Your task to perform on an android device: turn on bluetooth scan Image 0: 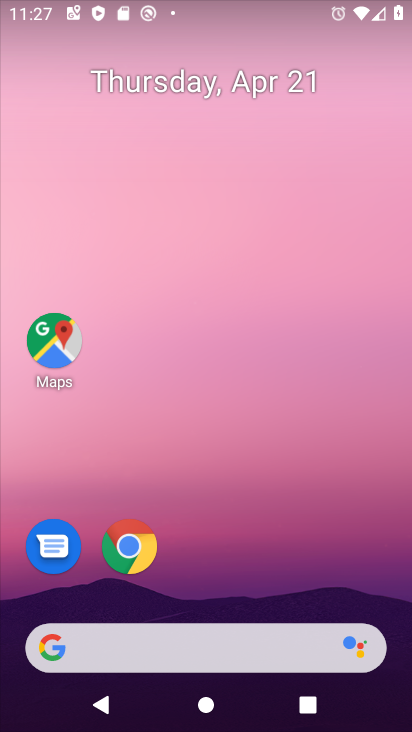
Step 0: drag from (228, 557) to (230, 51)
Your task to perform on an android device: turn on bluetooth scan Image 1: 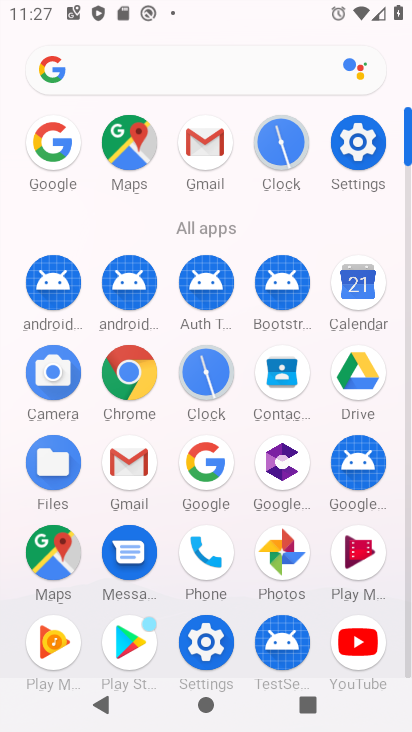
Step 1: click (359, 143)
Your task to perform on an android device: turn on bluetooth scan Image 2: 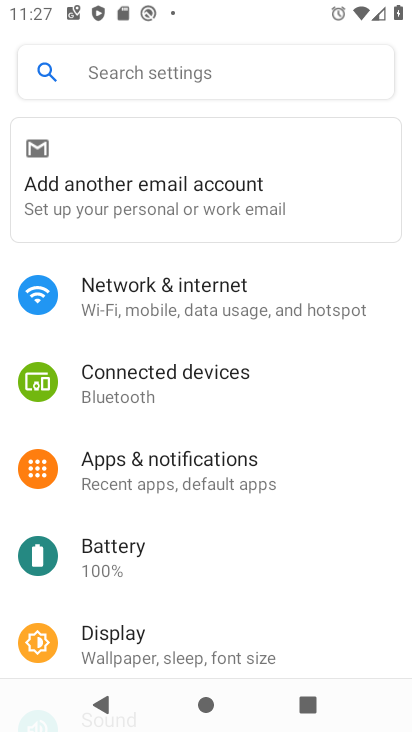
Step 2: drag from (242, 532) to (284, 177)
Your task to perform on an android device: turn on bluetooth scan Image 3: 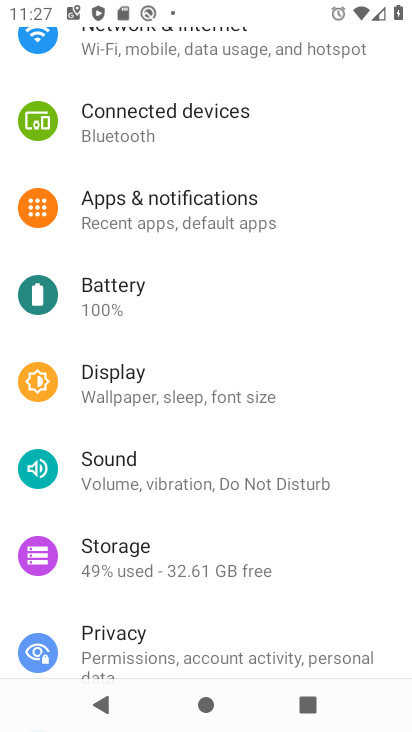
Step 3: drag from (229, 561) to (238, 407)
Your task to perform on an android device: turn on bluetooth scan Image 4: 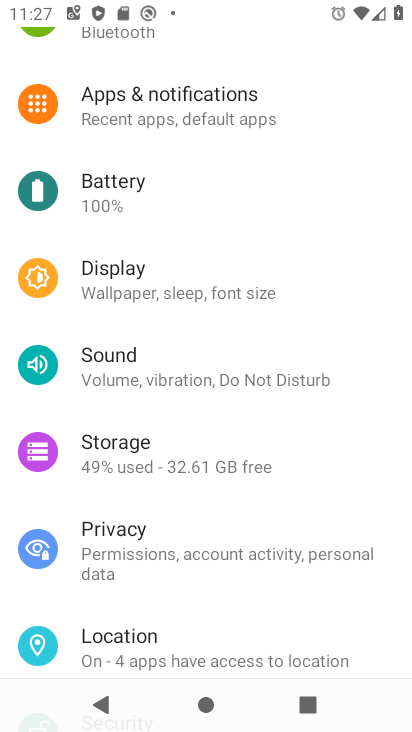
Step 4: click (127, 639)
Your task to perform on an android device: turn on bluetooth scan Image 5: 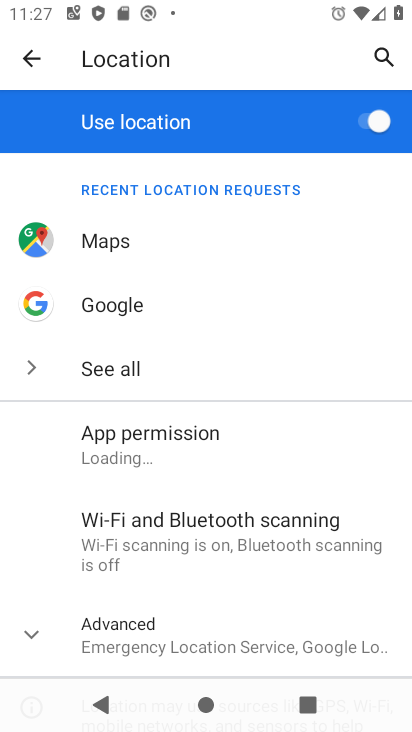
Step 5: drag from (225, 550) to (261, 347)
Your task to perform on an android device: turn on bluetooth scan Image 6: 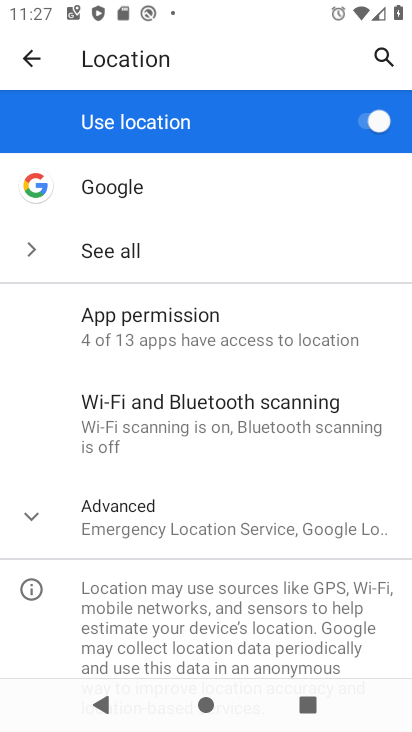
Step 6: click (204, 420)
Your task to perform on an android device: turn on bluetooth scan Image 7: 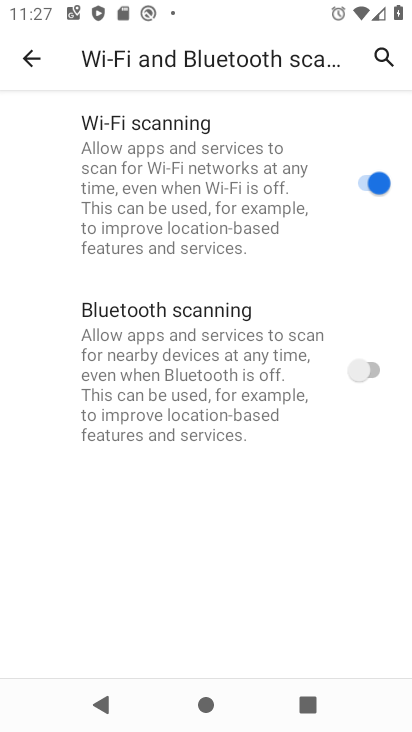
Step 7: click (361, 371)
Your task to perform on an android device: turn on bluetooth scan Image 8: 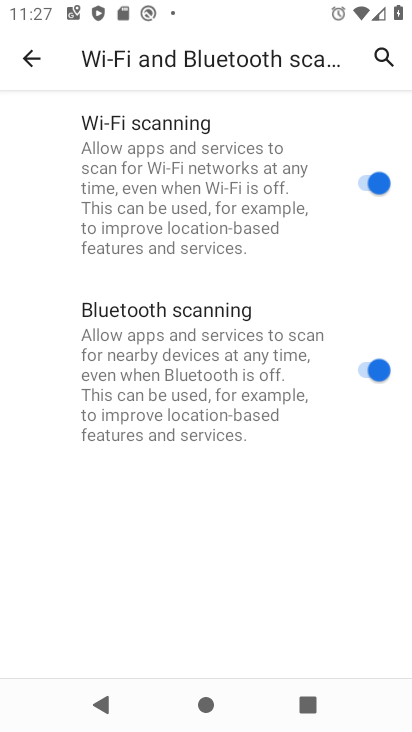
Step 8: task complete